Your task to perform on an android device: Open privacy settings Image 0: 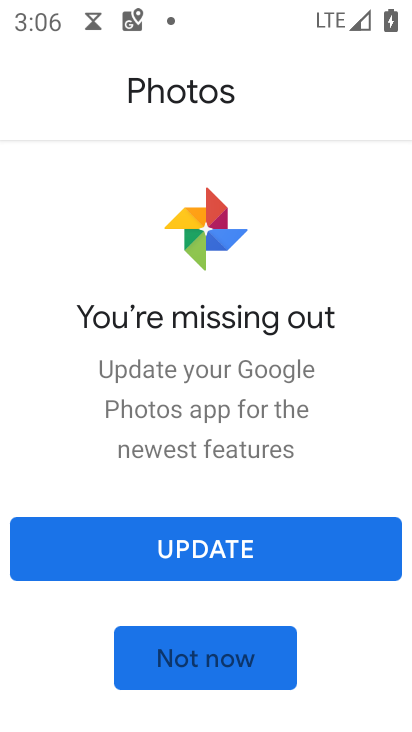
Step 0: press home button
Your task to perform on an android device: Open privacy settings Image 1: 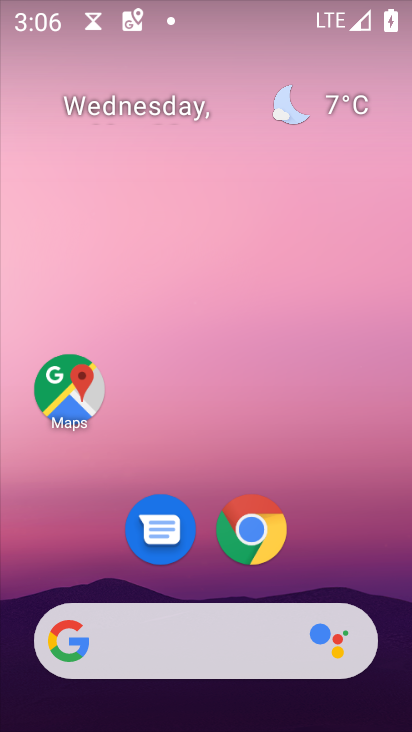
Step 1: drag from (365, 480) to (347, 44)
Your task to perform on an android device: Open privacy settings Image 2: 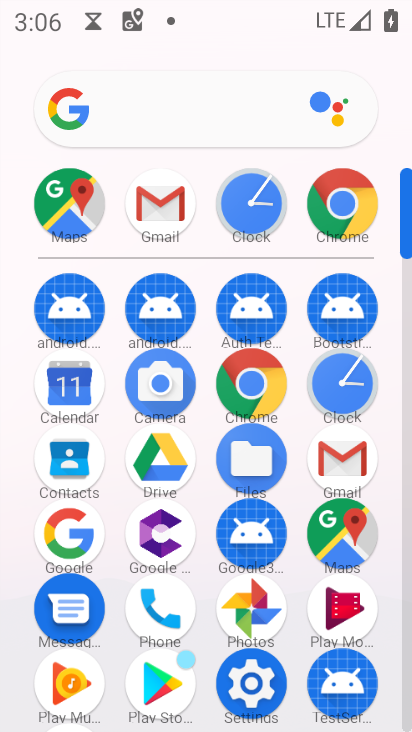
Step 2: click (272, 676)
Your task to perform on an android device: Open privacy settings Image 3: 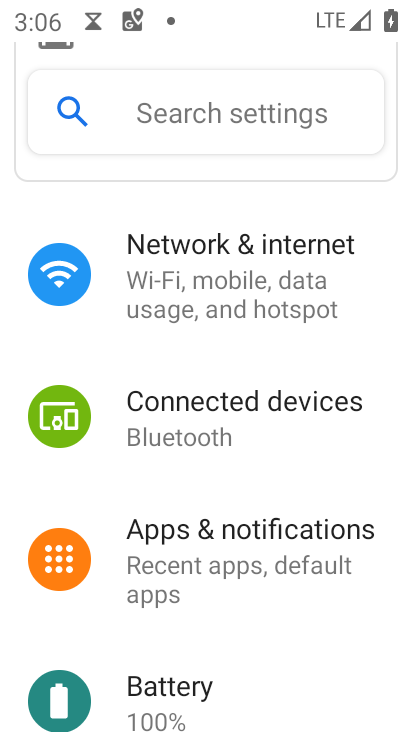
Step 3: drag from (266, 649) to (244, 217)
Your task to perform on an android device: Open privacy settings Image 4: 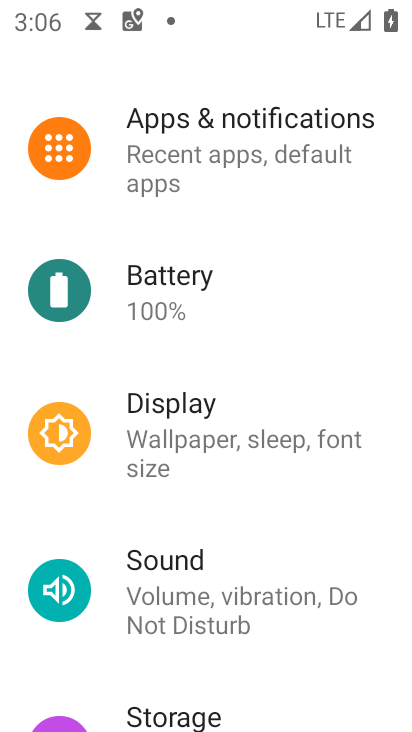
Step 4: drag from (192, 640) to (231, 160)
Your task to perform on an android device: Open privacy settings Image 5: 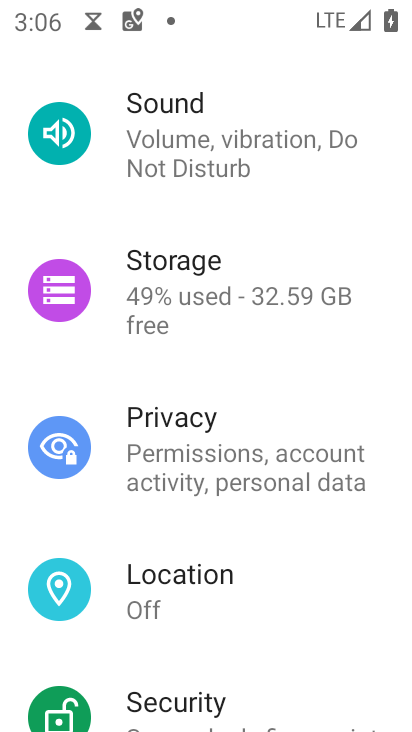
Step 5: click (184, 426)
Your task to perform on an android device: Open privacy settings Image 6: 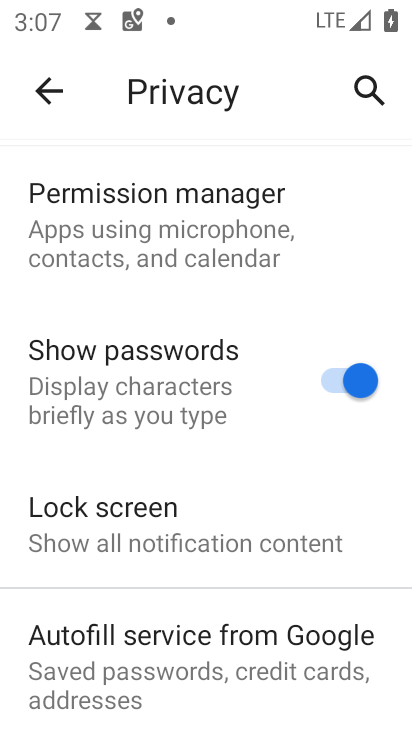
Step 6: task complete